Your task to perform on an android device: turn on location history Image 0: 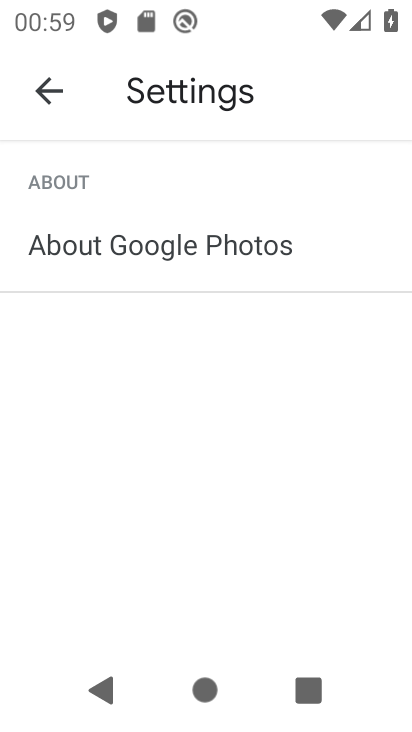
Step 0: press home button
Your task to perform on an android device: turn on location history Image 1: 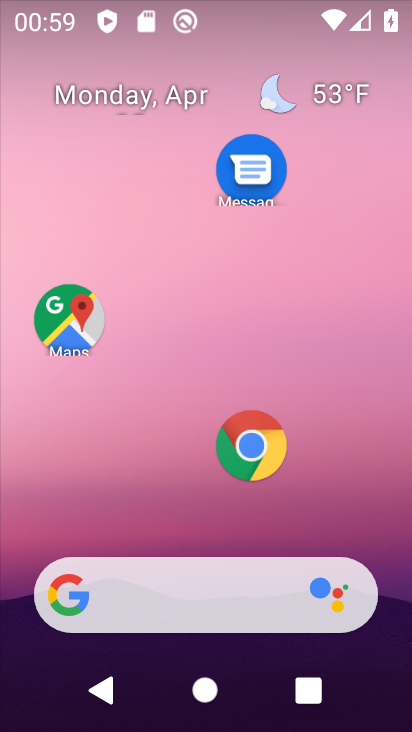
Step 1: drag from (172, 497) to (256, 0)
Your task to perform on an android device: turn on location history Image 2: 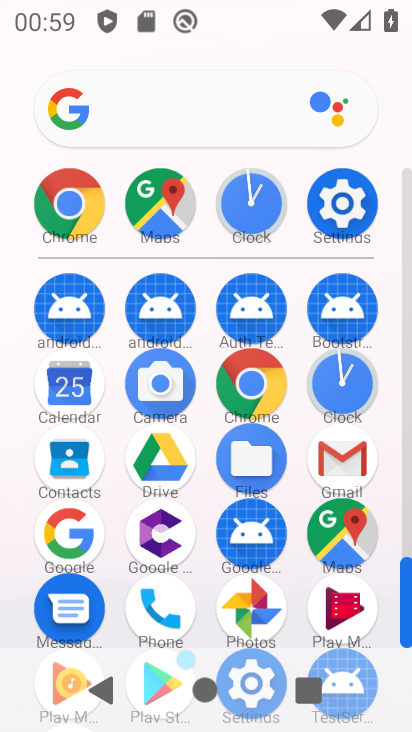
Step 2: click (342, 219)
Your task to perform on an android device: turn on location history Image 3: 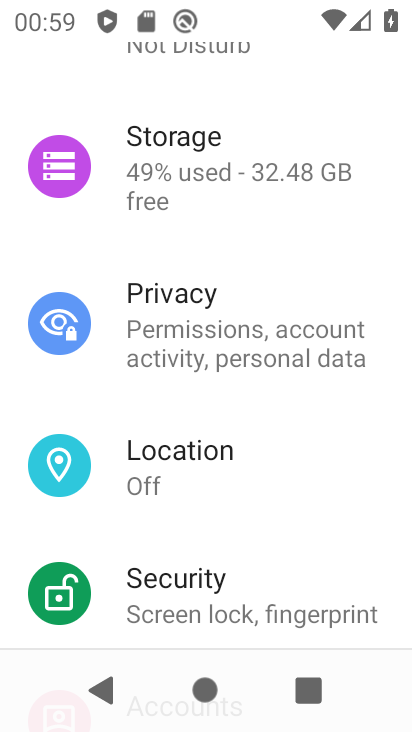
Step 3: click (187, 470)
Your task to perform on an android device: turn on location history Image 4: 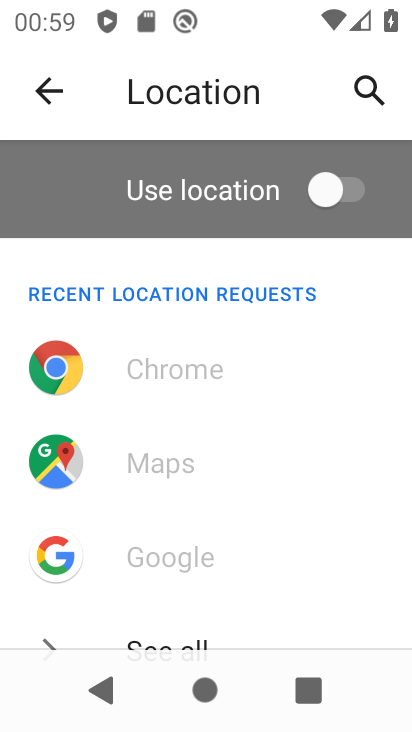
Step 4: drag from (184, 496) to (257, 133)
Your task to perform on an android device: turn on location history Image 5: 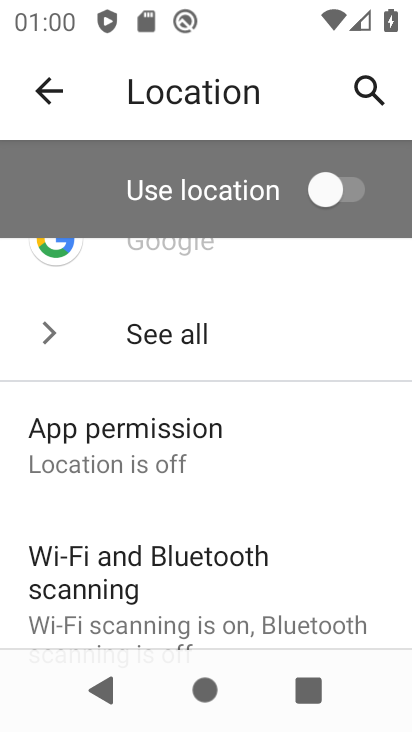
Step 5: drag from (174, 570) to (204, 279)
Your task to perform on an android device: turn on location history Image 6: 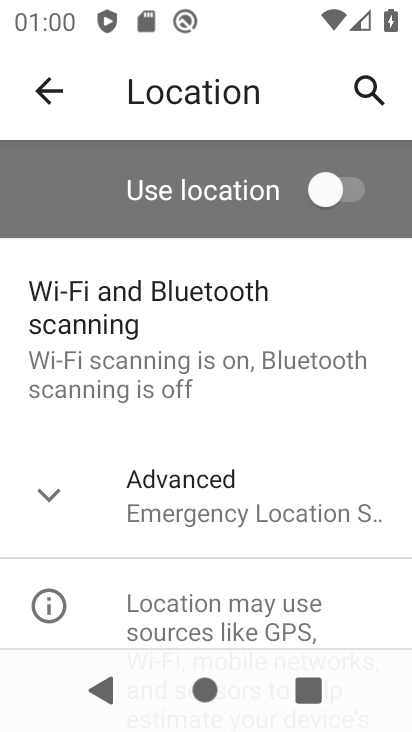
Step 6: drag from (115, 555) to (139, 422)
Your task to perform on an android device: turn on location history Image 7: 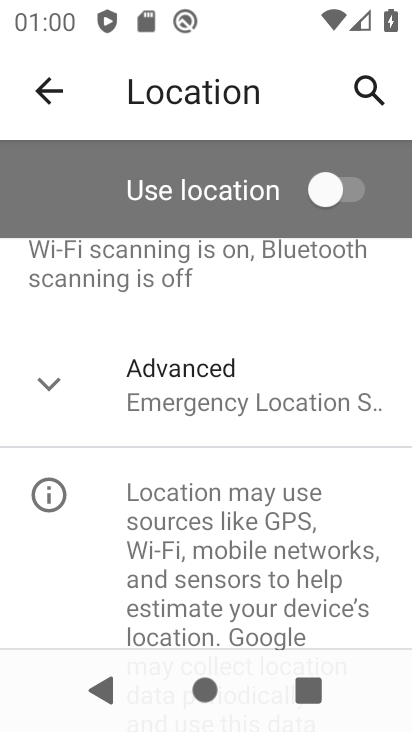
Step 7: click (62, 395)
Your task to perform on an android device: turn on location history Image 8: 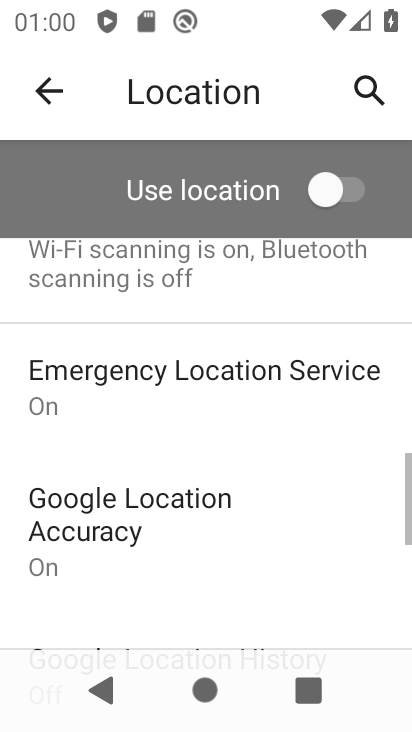
Step 8: drag from (227, 541) to (255, 304)
Your task to perform on an android device: turn on location history Image 9: 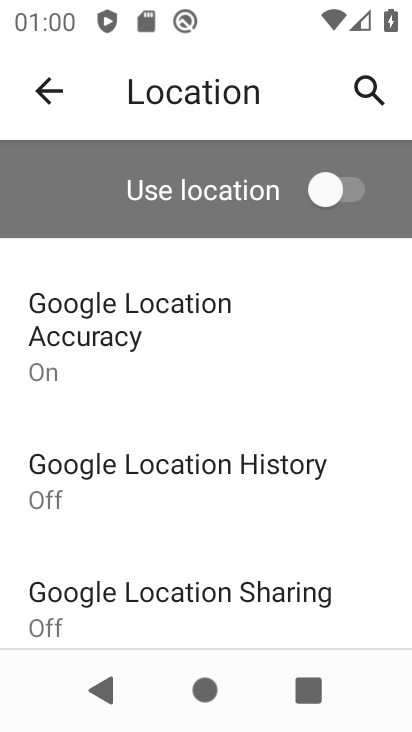
Step 9: click (225, 486)
Your task to perform on an android device: turn on location history Image 10: 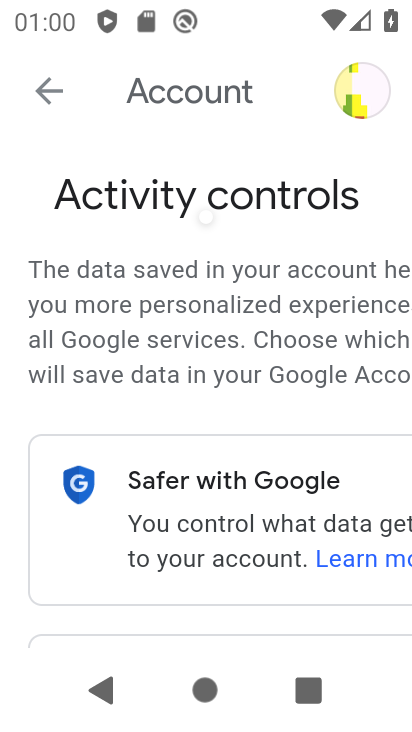
Step 10: drag from (230, 481) to (254, 145)
Your task to perform on an android device: turn on location history Image 11: 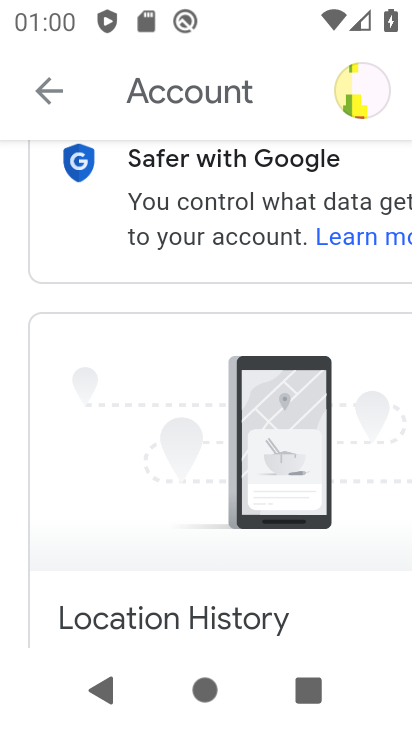
Step 11: drag from (204, 467) to (212, 110)
Your task to perform on an android device: turn on location history Image 12: 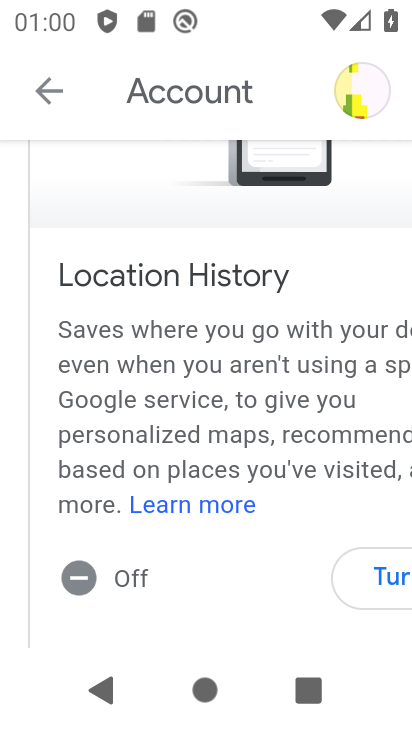
Step 12: drag from (167, 504) to (176, 372)
Your task to perform on an android device: turn on location history Image 13: 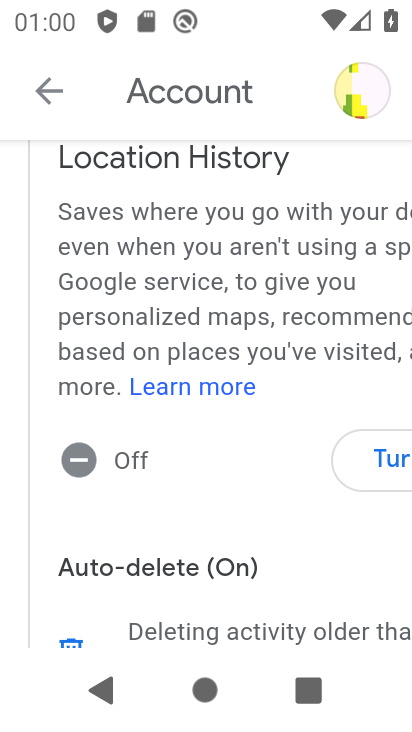
Step 13: click (357, 469)
Your task to perform on an android device: turn on location history Image 14: 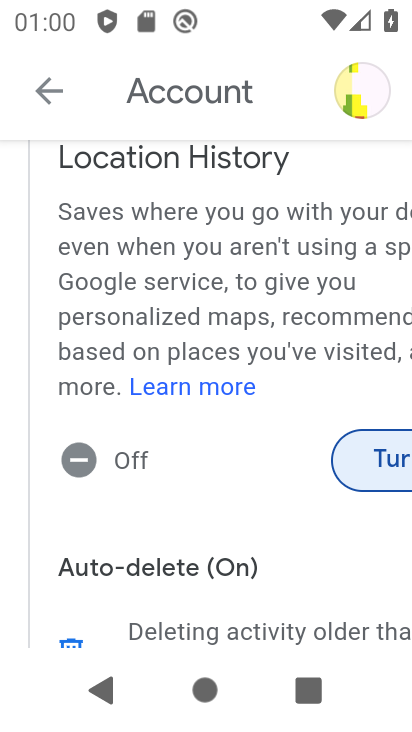
Step 14: click (365, 468)
Your task to perform on an android device: turn on location history Image 15: 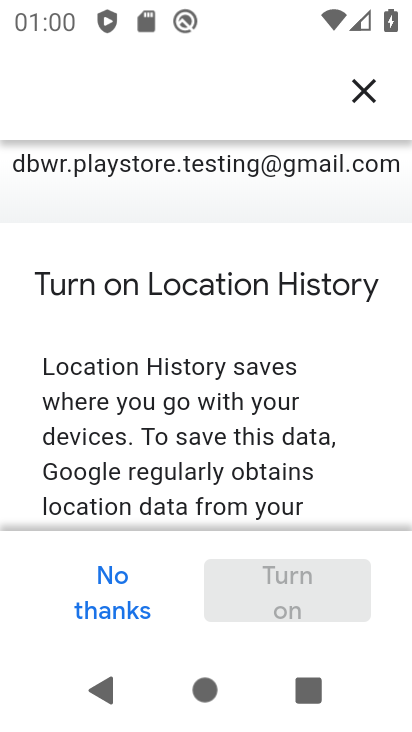
Step 15: drag from (231, 481) to (255, 121)
Your task to perform on an android device: turn on location history Image 16: 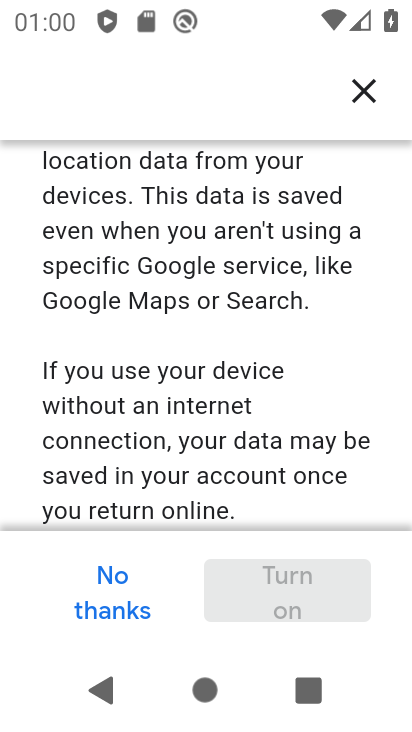
Step 16: drag from (209, 421) to (268, 23)
Your task to perform on an android device: turn on location history Image 17: 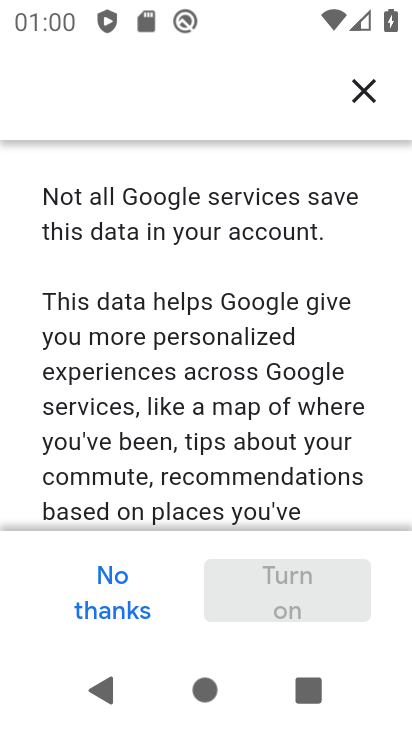
Step 17: drag from (250, 491) to (282, 90)
Your task to perform on an android device: turn on location history Image 18: 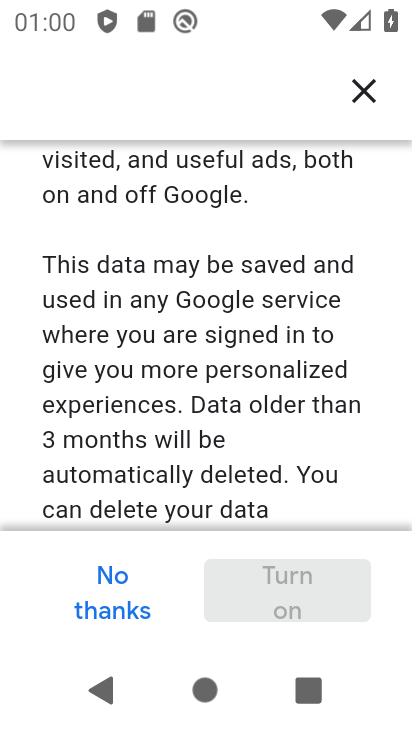
Step 18: drag from (207, 477) to (259, 28)
Your task to perform on an android device: turn on location history Image 19: 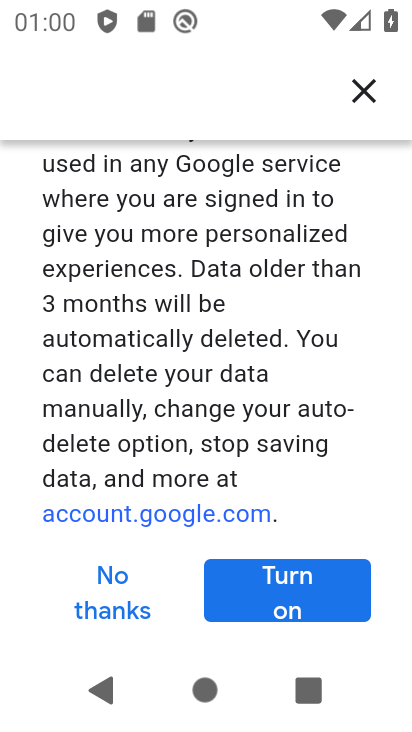
Step 19: click (280, 594)
Your task to perform on an android device: turn on location history Image 20: 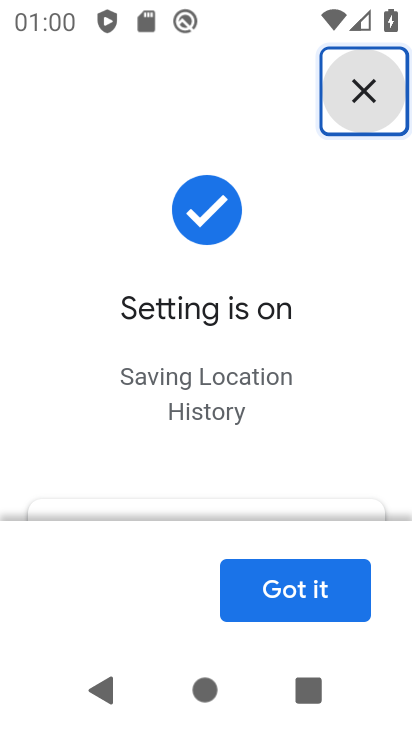
Step 20: click (266, 586)
Your task to perform on an android device: turn on location history Image 21: 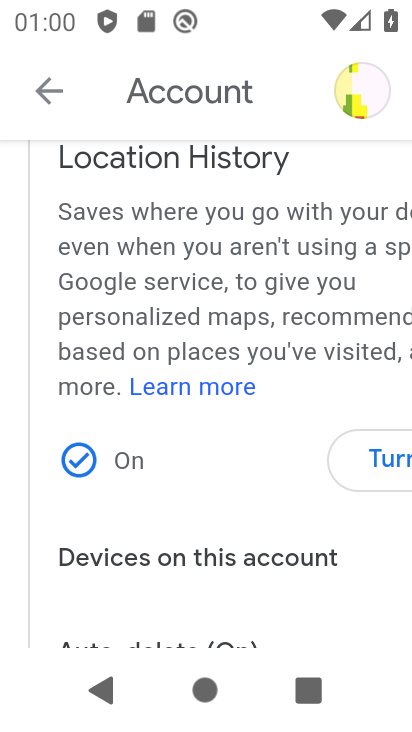
Step 21: task complete